Your task to perform on an android device: Open Reddit.com Image 0: 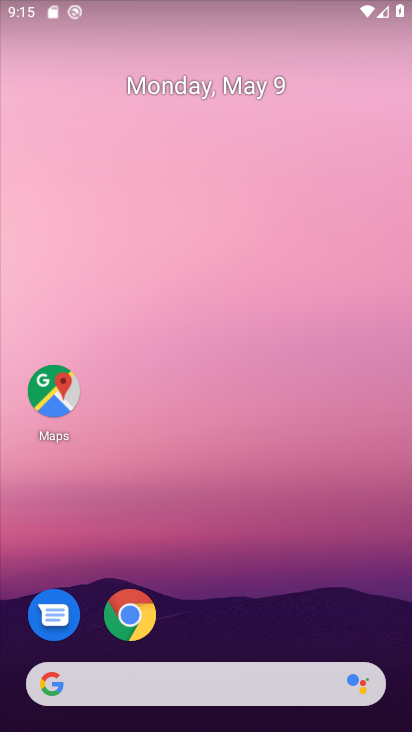
Step 0: drag from (328, 705) to (224, 358)
Your task to perform on an android device: Open Reddit.com Image 1: 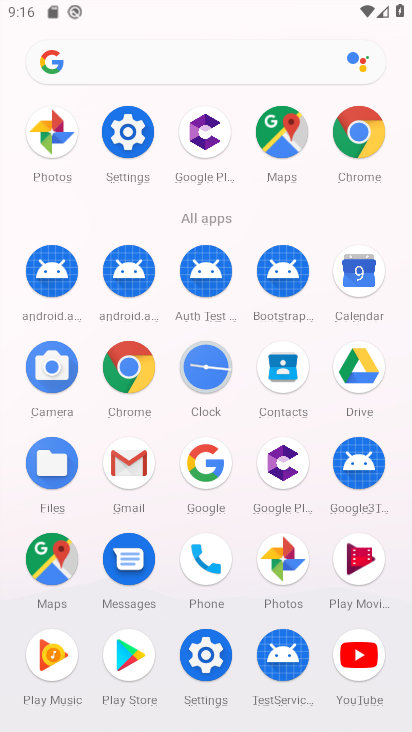
Step 1: click (352, 147)
Your task to perform on an android device: Open Reddit.com Image 2: 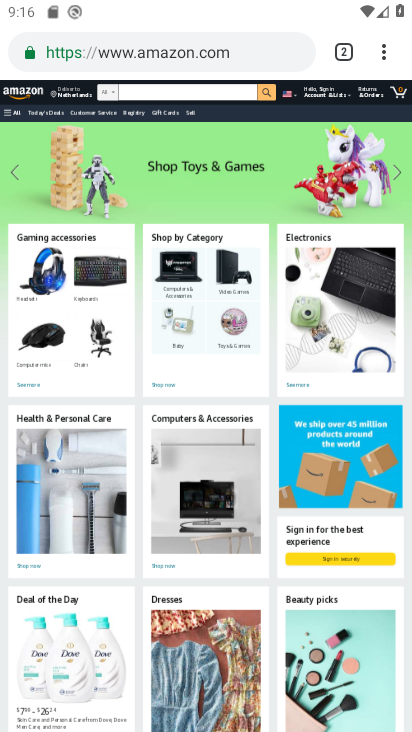
Step 2: click (208, 47)
Your task to perform on an android device: Open Reddit.com Image 3: 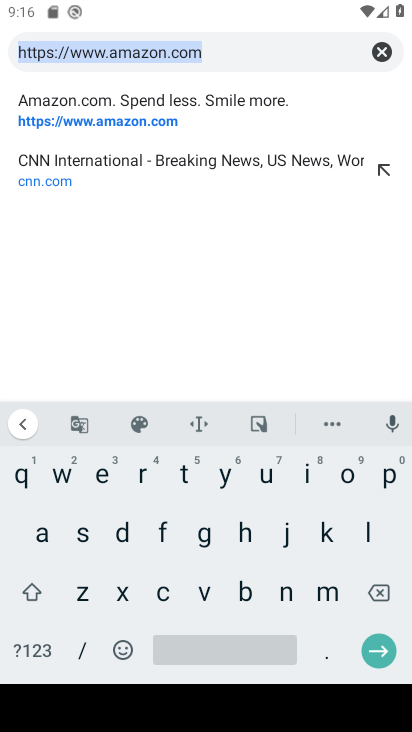
Step 3: click (377, 50)
Your task to perform on an android device: Open Reddit.com Image 4: 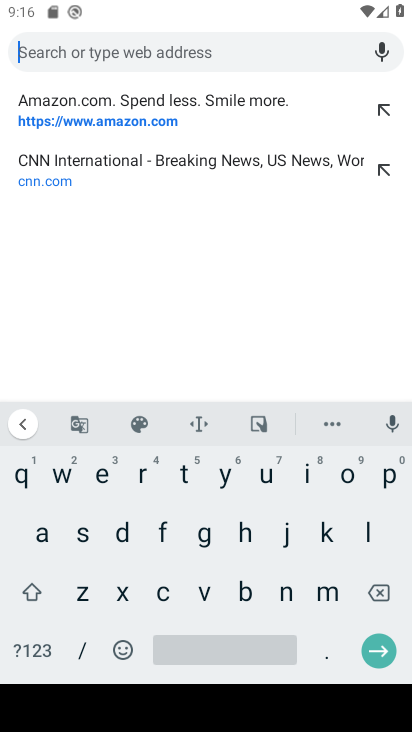
Step 4: click (132, 477)
Your task to perform on an android device: Open Reddit.com Image 5: 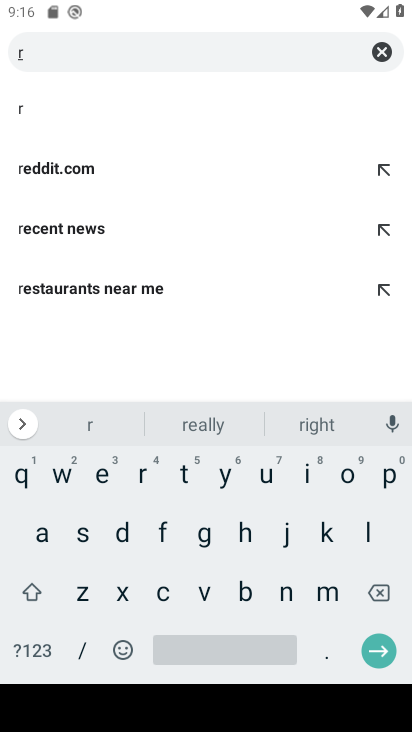
Step 5: click (96, 474)
Your task to perform on an android device: Open Reddit.com Image 6: 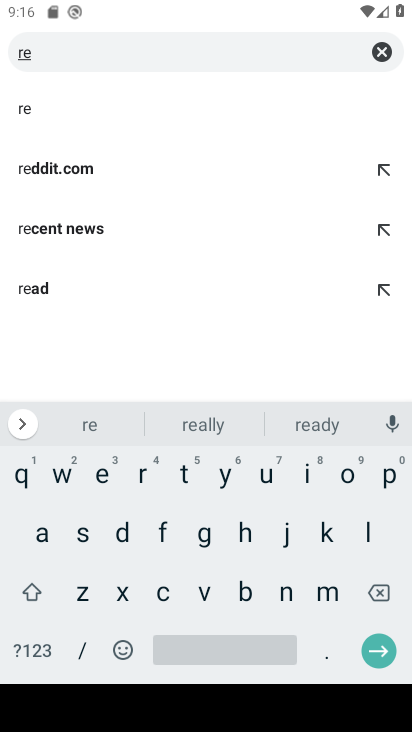
Step 6: click (114, 175)
Your task to perform on an android device: Open Reddit.com Image 7: 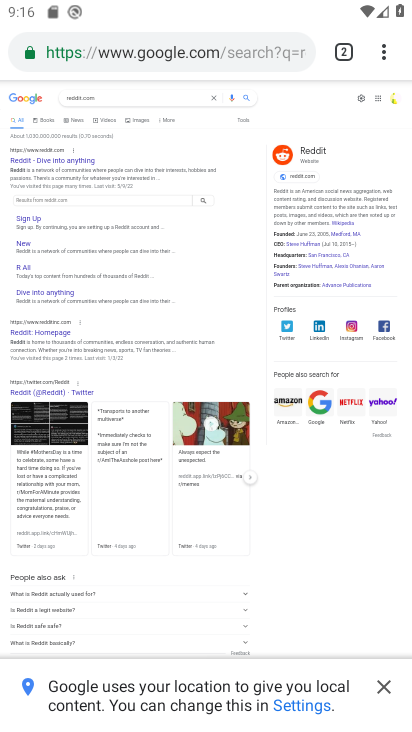
Step 7: click (29, 129)
Your task to perform on an android device: Open Reddit.com Image 8: 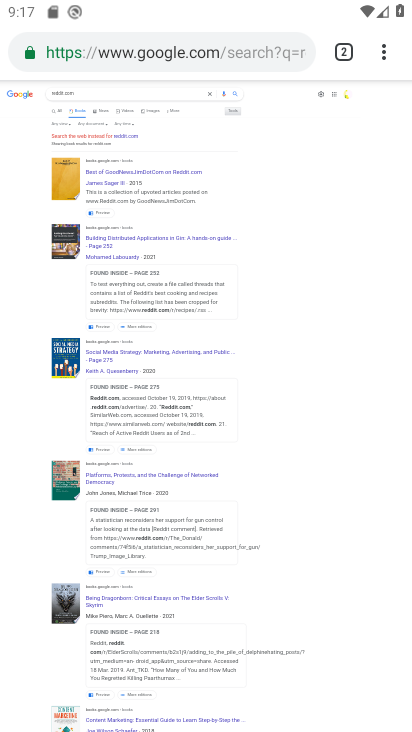
Step 8: click (53, 109)
Your task to perform on an android device: Open Reddit.com Image 9: 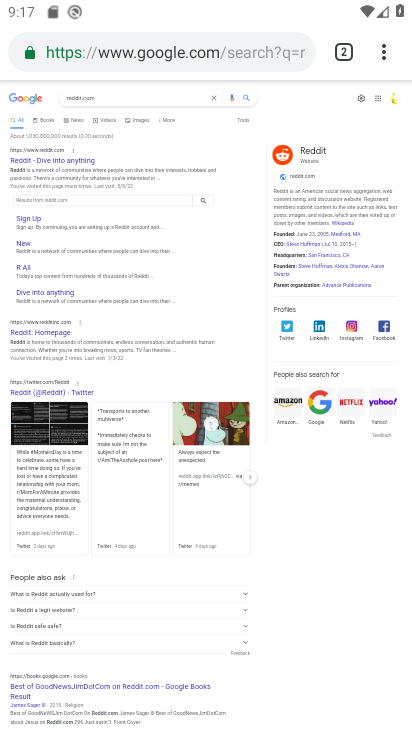
Step 9: click (21, 164)
Your task to perform on an android device: Open Reddit.com Image 10: 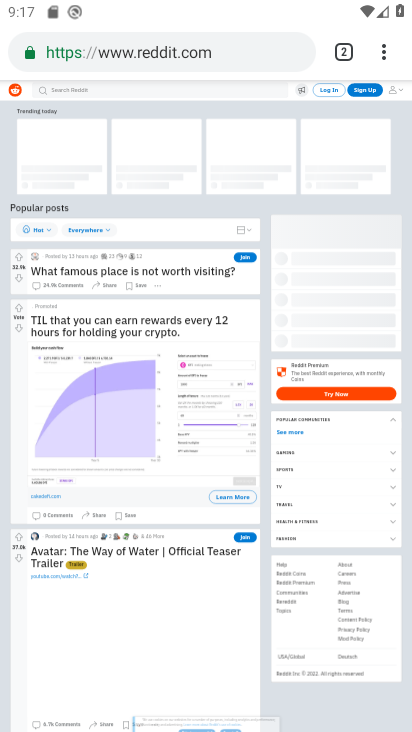
Step 10: click (391, 60)
Your task to perform on an android device: Open Reddit.com Image 11: 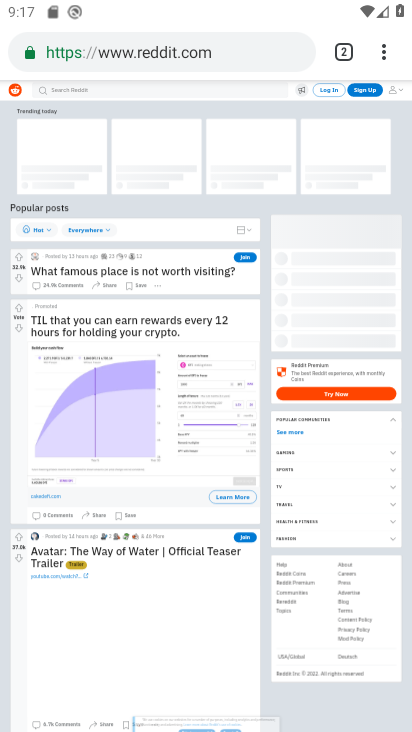
Step 11: click (377, 67)
Your task to perform on an android device: Open Reddit.com Image 12: 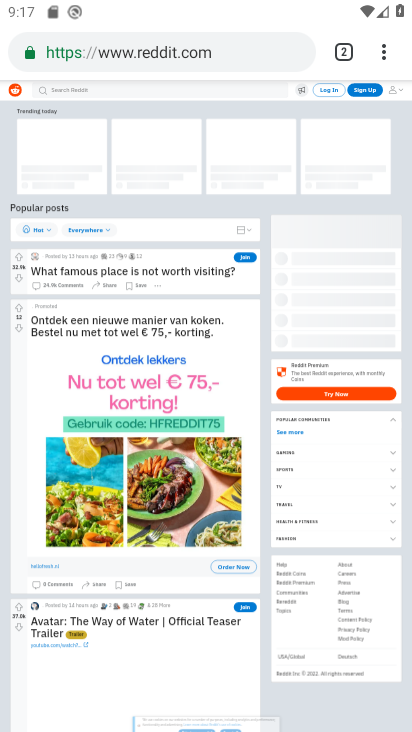
Step 12: click (374, 61)
Your task to perform on an android device: Open Reddit.com Image 13: 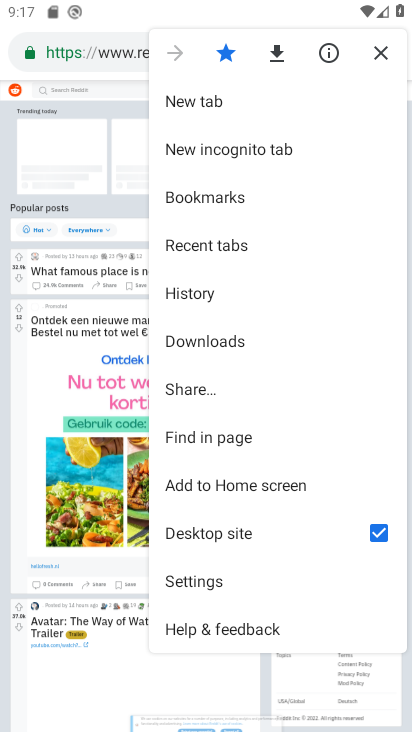
Step 13: click (374, 532)
Your task to perform on an android device: Open Reddit.com Image 14: 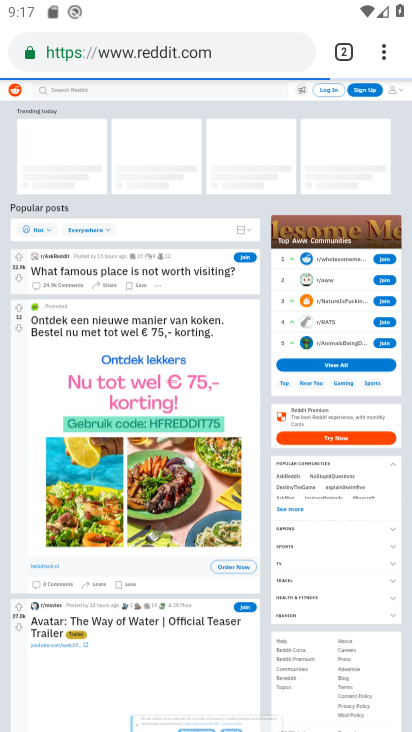
Step 14: task complete